Your task to perform on an android device: What's on my calendar today? Image 0: 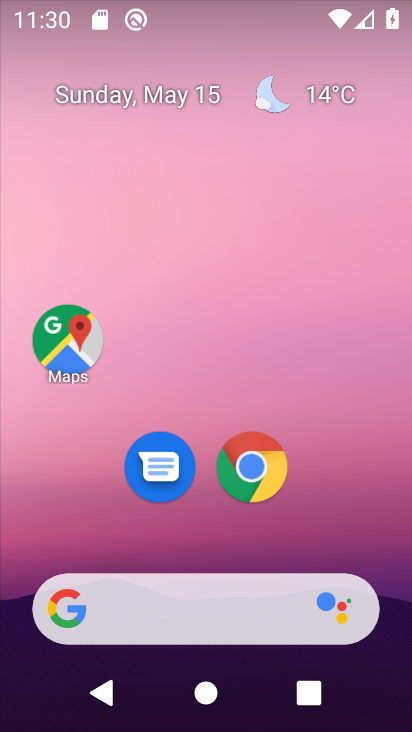
Step 0: drag from (201, 528) to (222, 50)
Your task to perform on an android device: What's on my calendar today? Image 1: 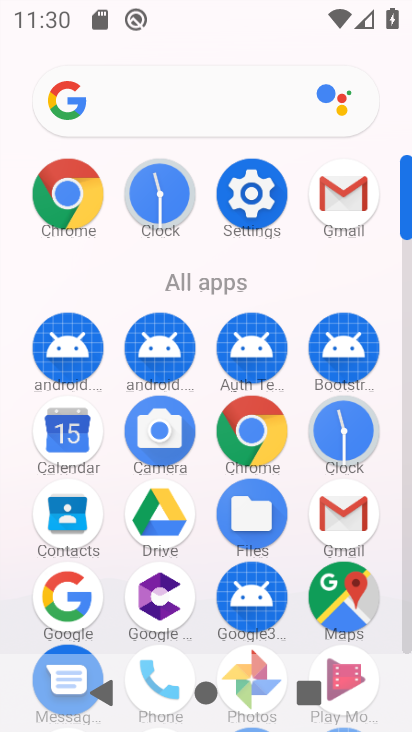
Step 1: click (63, 432)
Your task to perform on an android device: What's on my calendar today? Image 2: 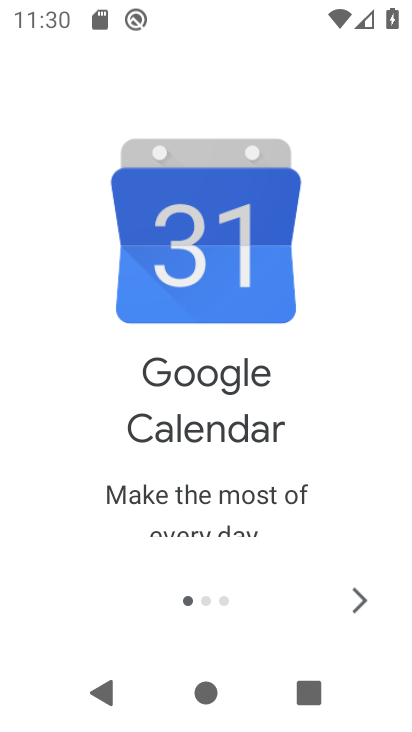
Step 2: click (353, 597)
Your task to perform on an android device: What's on my calendar today? Image 3: 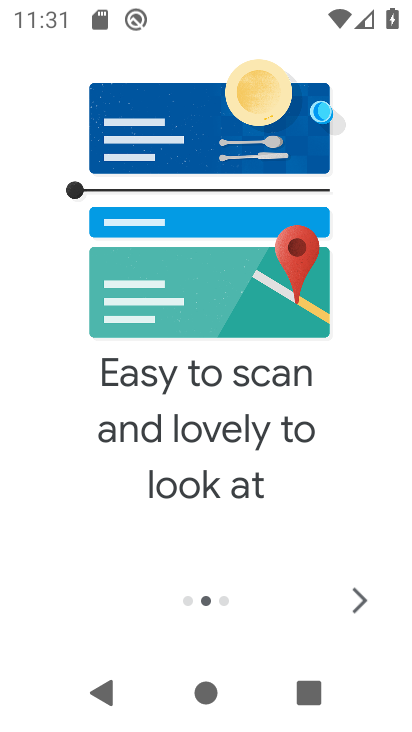
Step 3: click (361, 595)
Your task to perform on an android device: What's on my calendar today? Image 4: 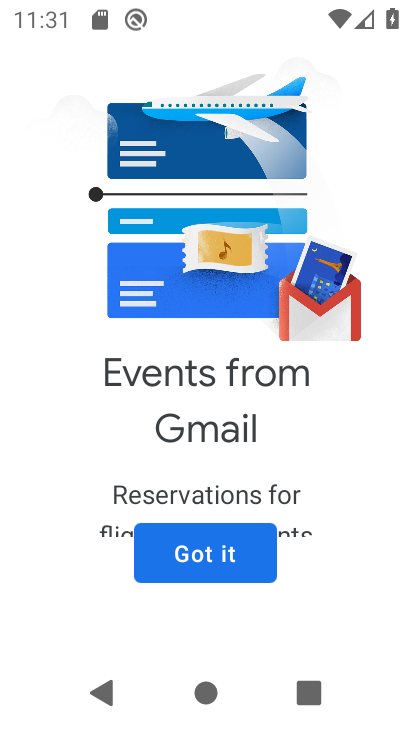
Step 4: click (209, 551)
Your task to perform on an android device: What's on my calendar today? Image 5: 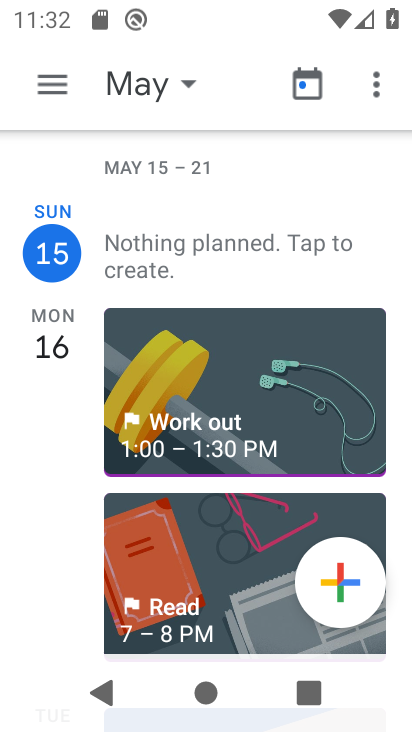
Step 5: click (63, 78)
Your task to perform on an android device: What's on my calendar today? Image 6: 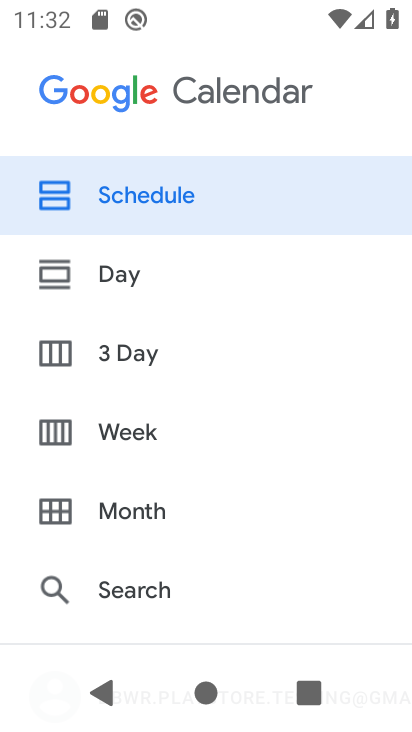
Step 6: click (83, 269)
Your task to perform on an android device: What's on my calendar today? Image 7: 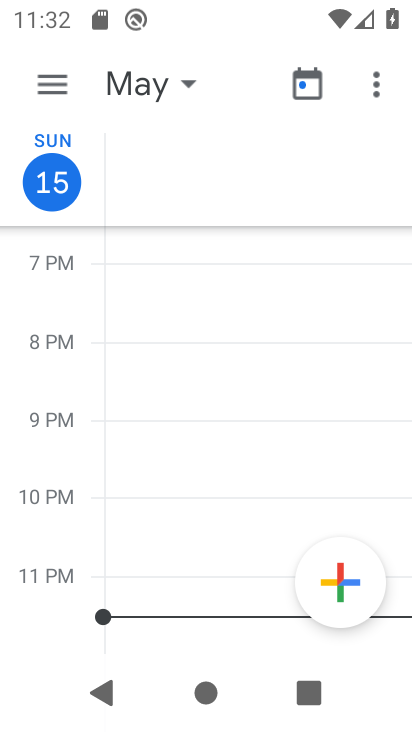
Step 7: task complete